Your task to perform on an android device: Open maps Image 0: 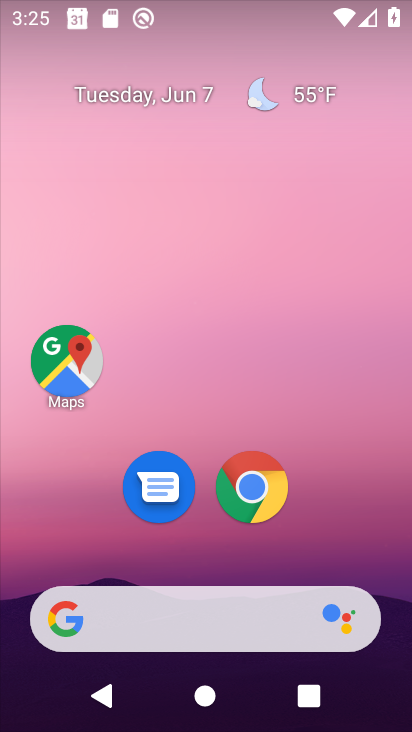
Step 0: click (73, 361)
Your task to perform on an android device: Open maps Image 1: 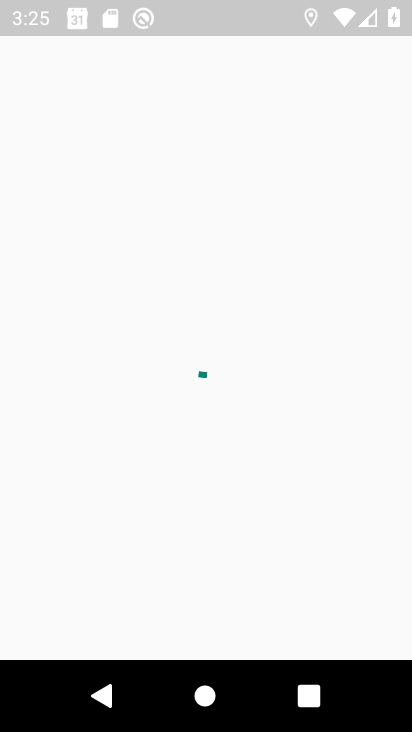
Step 1: task complete